Your task to perform on an android device: Check the weather Image 0: 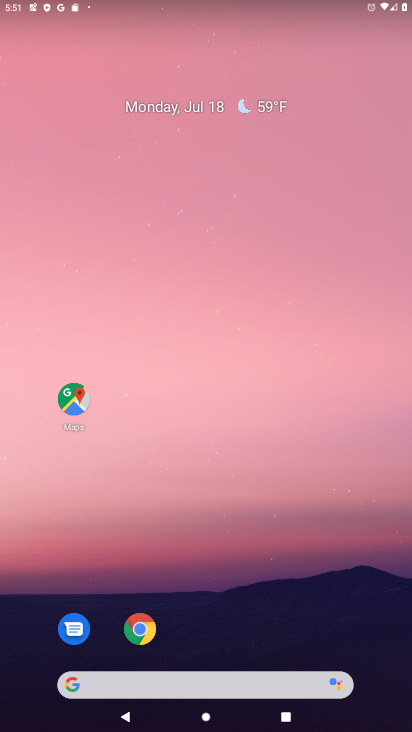
Step 0: drag from (320, 593) to (347, 484)
Your task to perform on an android device: Check the weather Image 1: 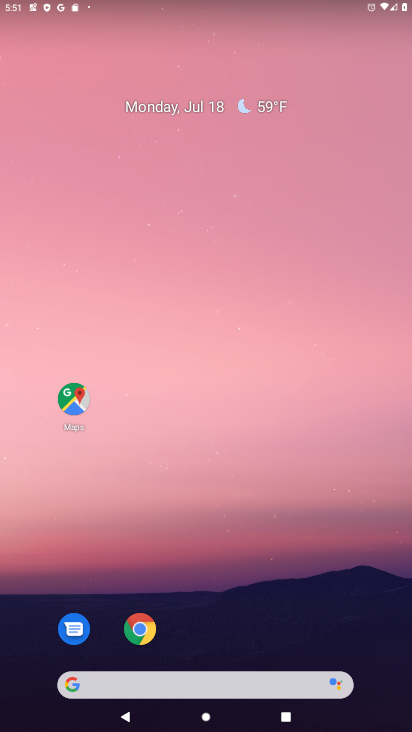
Step 1: click (271, 109)
Your task to perform on an android device: Check the weather Image 2: 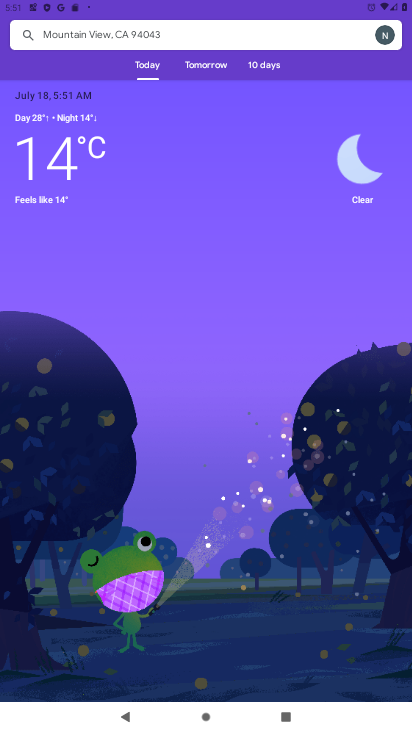
Step 2: task complete